Your task to perform on an android device: turn pop-ups off in chrome Image 0: 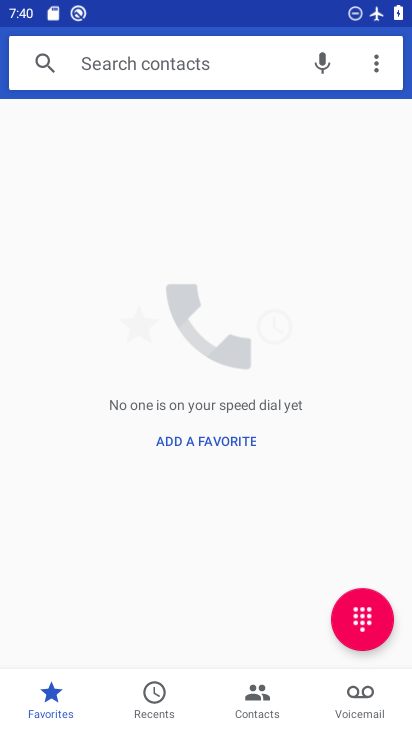
Step 0: press home button
Your task to perform on an android device: turn pop-ups off in chrome Image 1: 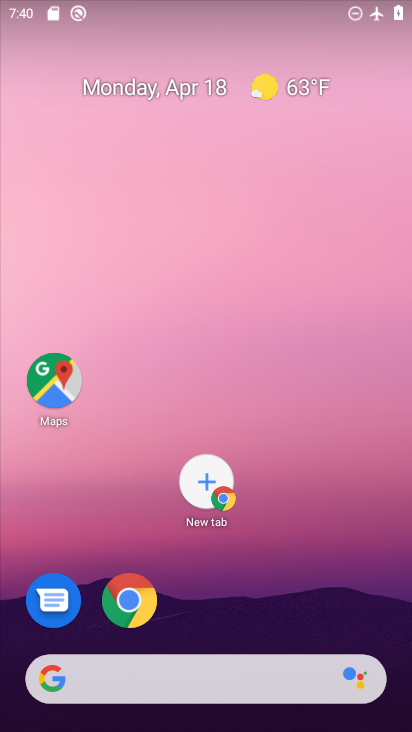
Step 1: click (131, 600)
Your task to perform on an android device: turn pop-ups off in chrome Image 2: 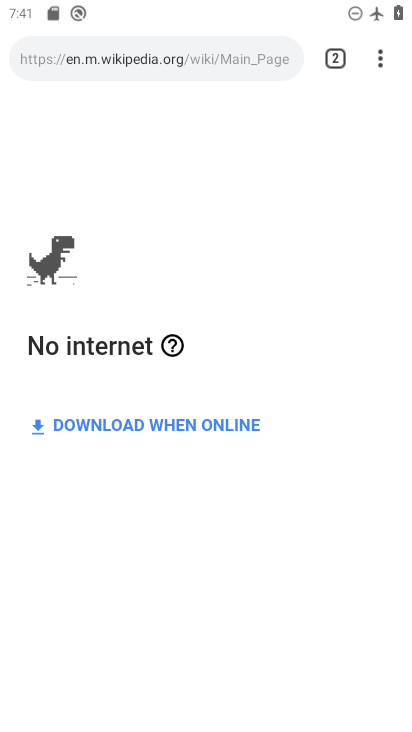
Step 2: click (382, 59)
Your task to perform on an android device: turn pop-ups off in chrome Image 3: 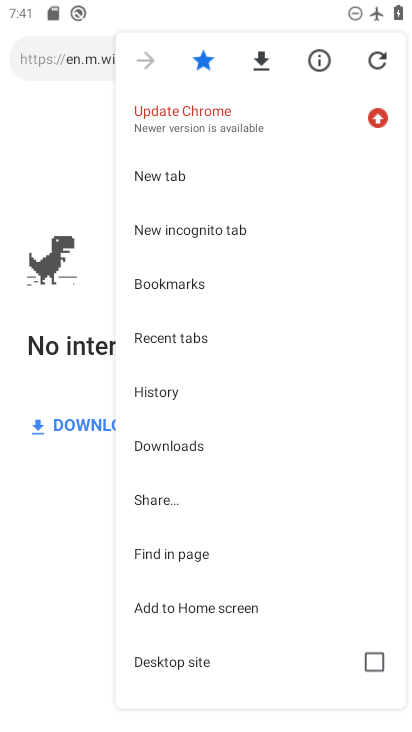
Step 3: drag from (252, 620) to (249, 45)
Your task to perform on an android device: turn pop-ups off in chrome Image 4: 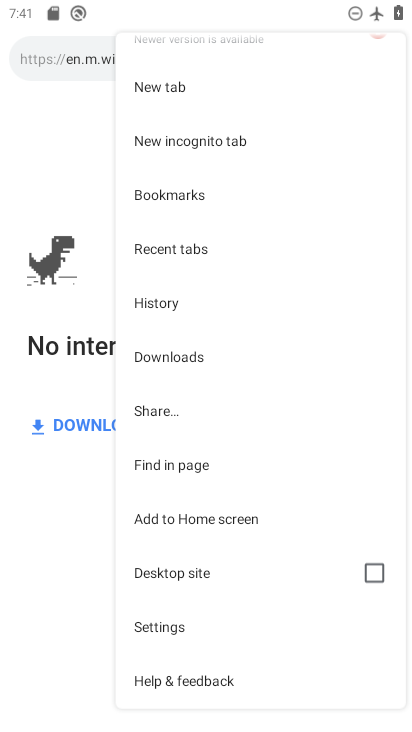
Step 4: click (174, 627)
Your task to perform on an android device: turn pop-ups off in chrome Image 5: 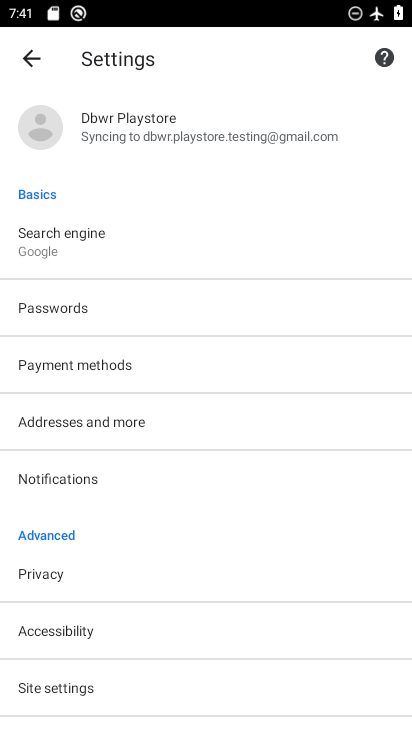
Step 5: click (68, 684)
Your task to perform on an android device: turn pop-ups off in chrome Image 6: 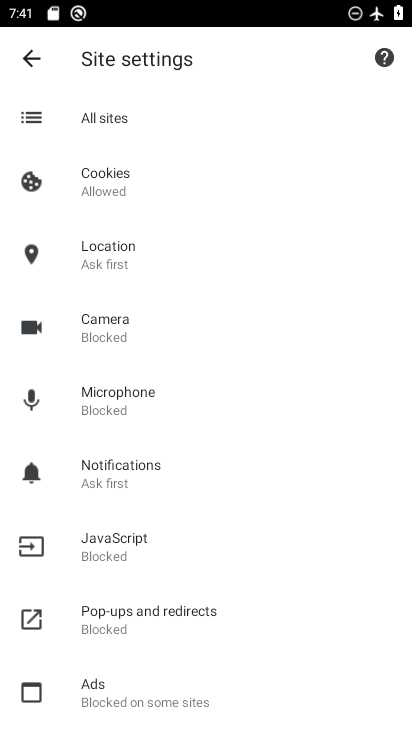
Step 6: click (124, 607)
Your task to perform on an android device: turn pop-ups off in chrome Image 7: 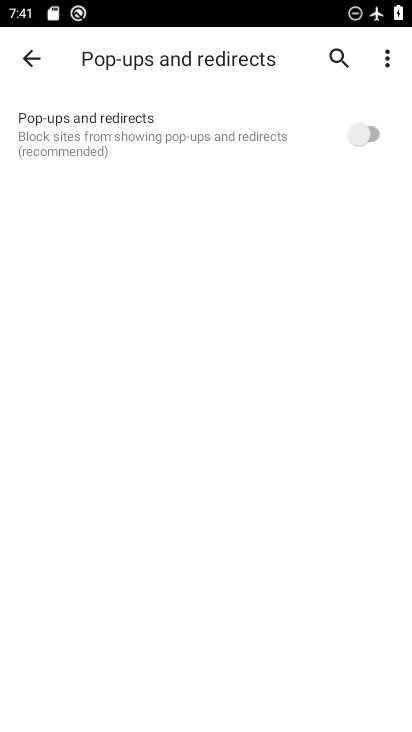
Step 7: task complete